Your task to perform on an android device: Search for flights from Helsinki to Tokyo Image 0: 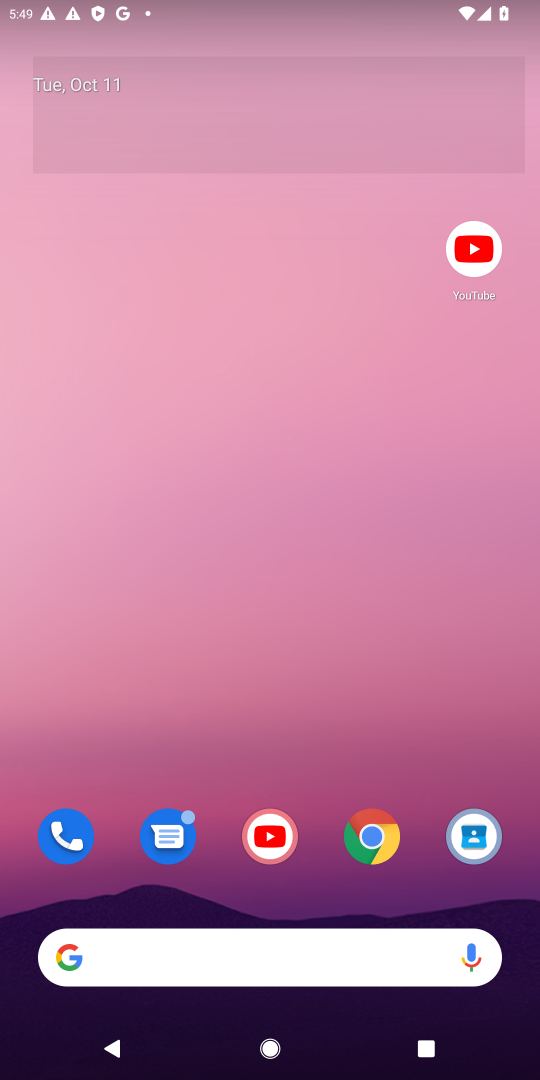
Step 0: click (366, 844)
Your task to perform on an android device: Search for flights from Helsinki to Tokyo Image 1: 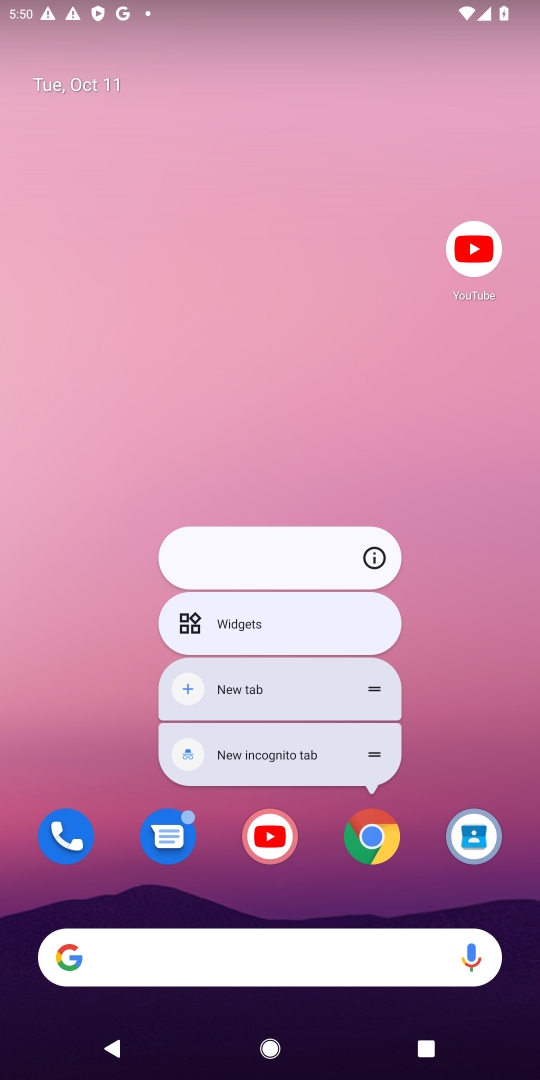
Step 1: click (373, 835)
Your task to perform on an android device: Search for flights from Helsinki to Tokyo Image 2: 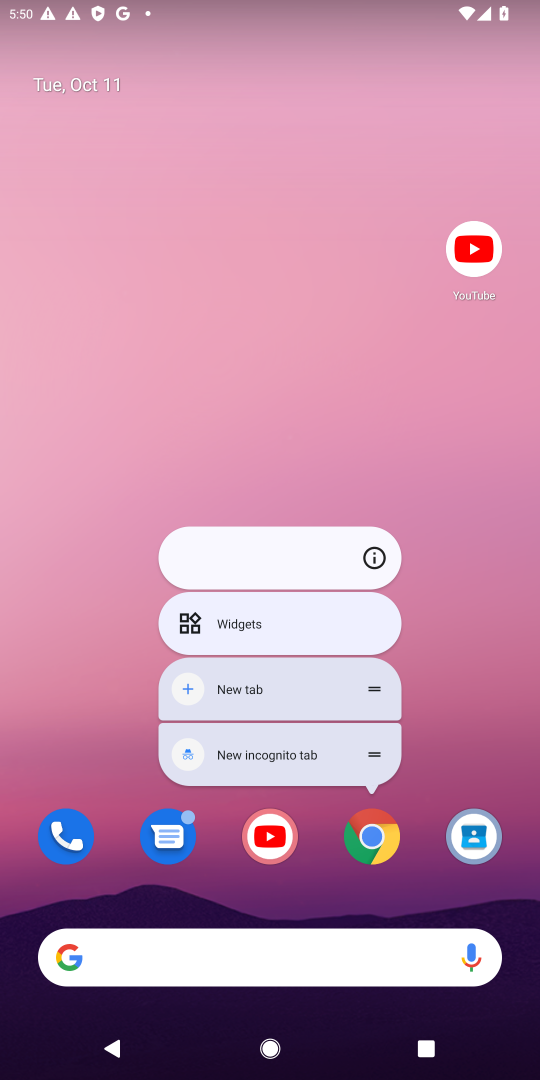
Step 2: click (370, 846)
Your task to perform on an android device: Search for flights from Helsinki to Tokyo Image 3: 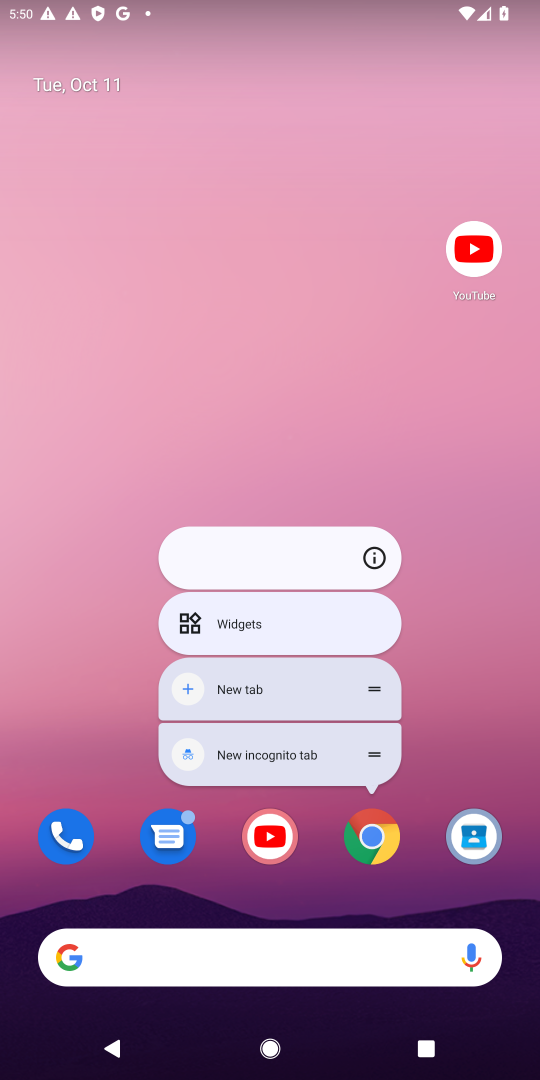
Step 3: click (380, 842)
Your task to perform on an android device: Search for flights from Helsinki to Tokyo Image 4: 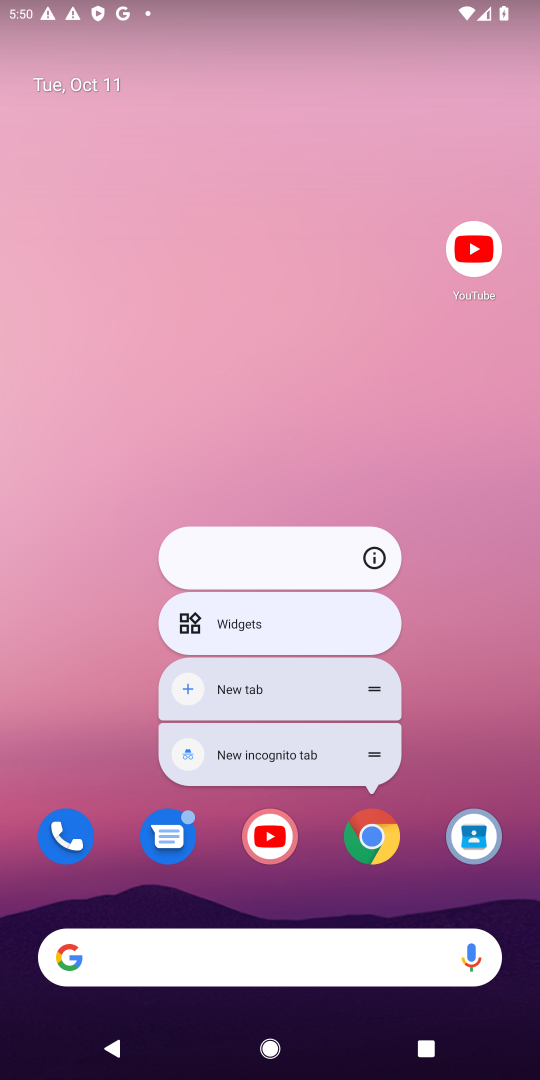
Step 4: click (380, 842)
Your task to perform on an android device: Search for flights from Helsinki to Tokyo Image 5: 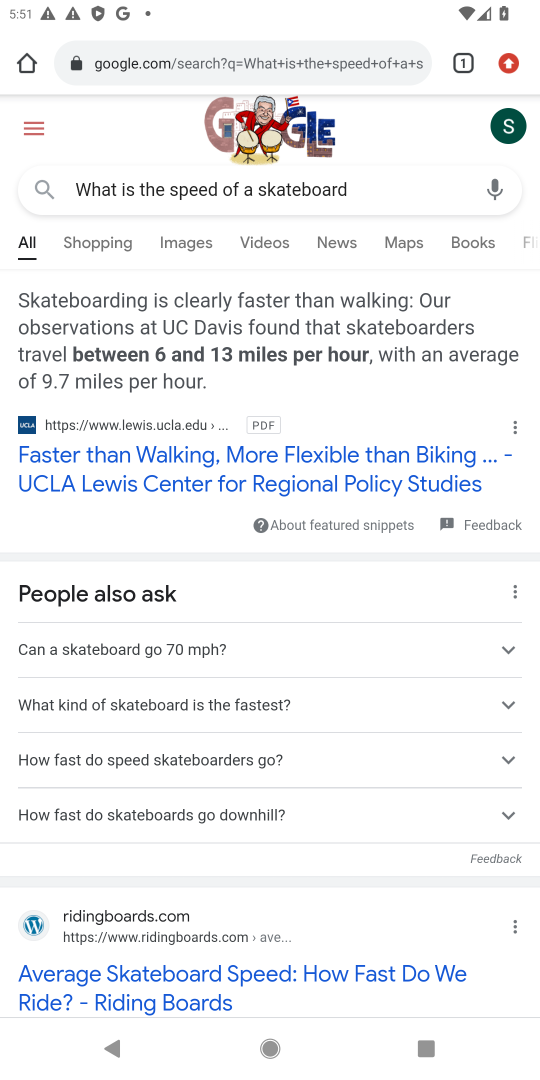
Step 5: click (390, 50)
Your task to perform on an android device: Search for flights from Helsinki to Tokyo Image 6: 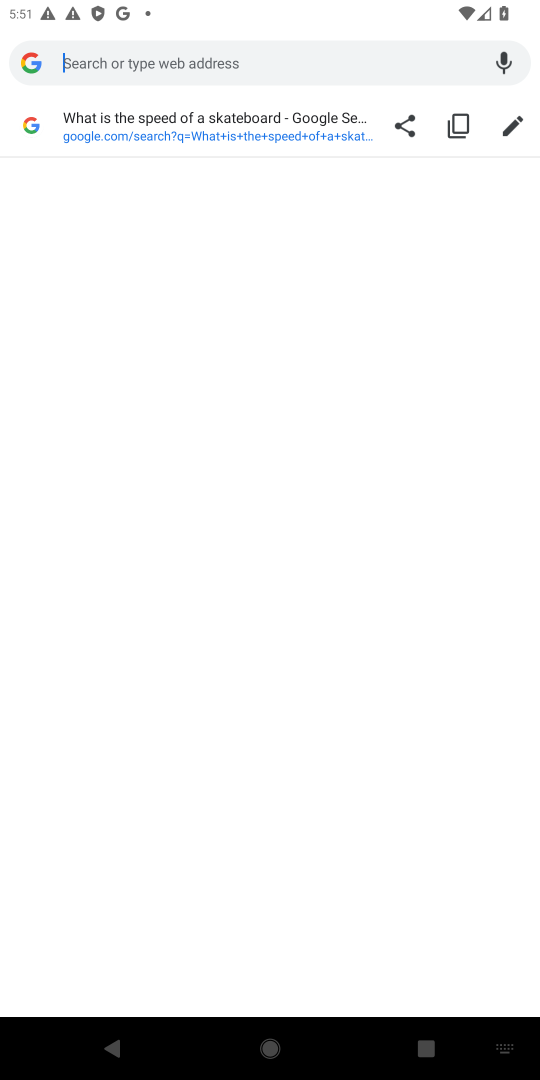
Step 6: type "flights from Helsinki to Tokyo"
Your task to perform on an android device: Search for flights from Helsinki to Tokyo Image 7: 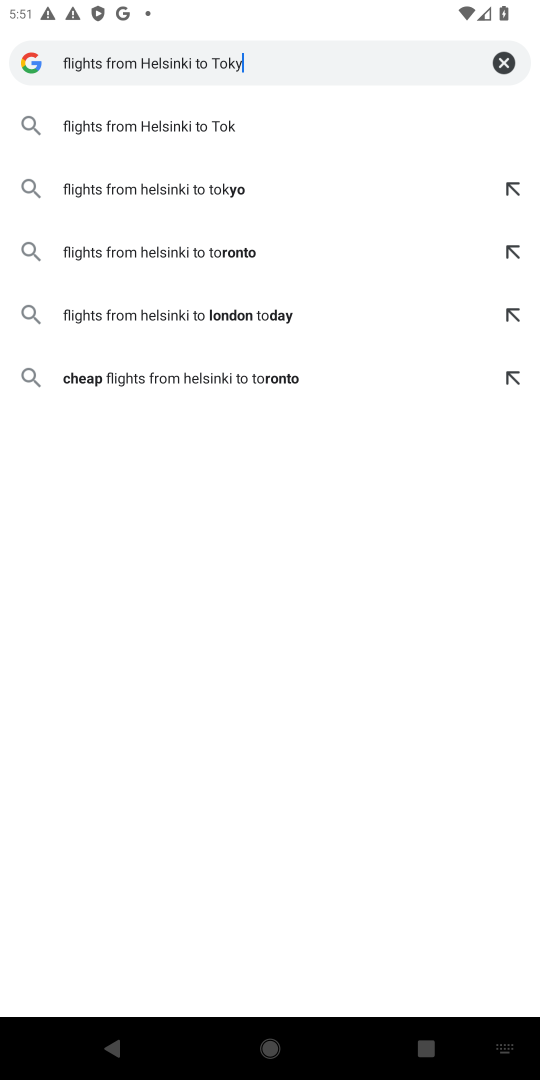
Step 7: press enter
Your task to perform on an android device: Search for flights from Helsinki to Tokyo Image 8: 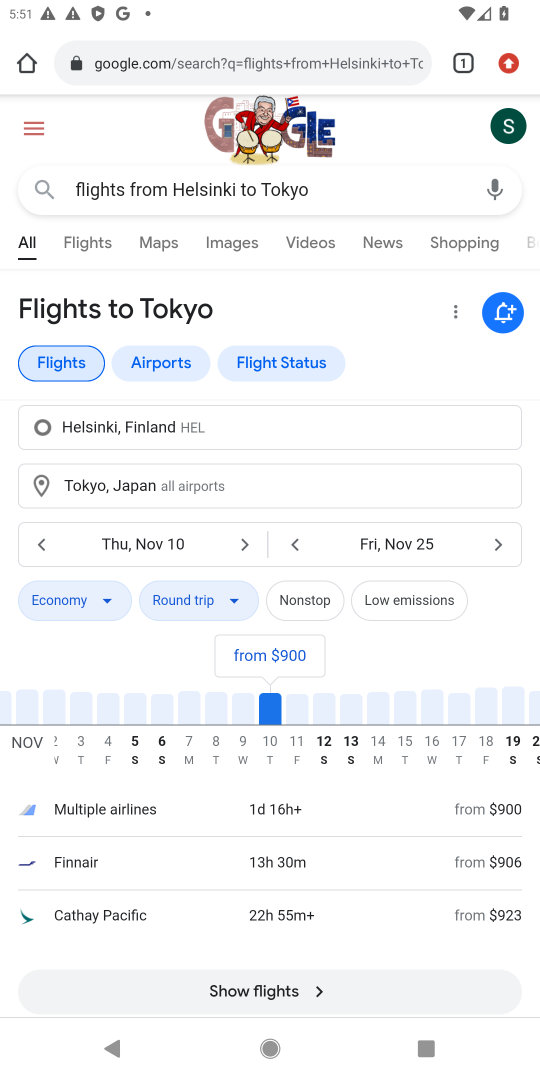
Step 8: task complete